Your task to perform on an android device: Go to Google Image 0: 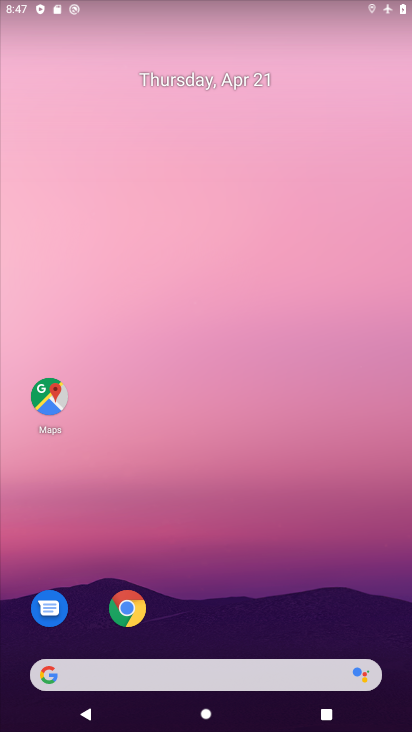
Step 0: click (197, 680)
Your task to perform on an android device: Go to Google Image 1: 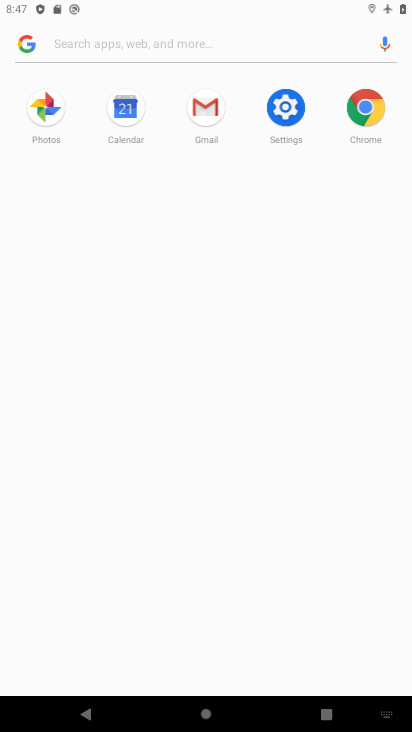
Step 1: task complete